Your task to perform on an android device: Clear all items from cart on walmart. Search for razer huntsman on walmart, select the first entry, and add it to the cart. Image 0: 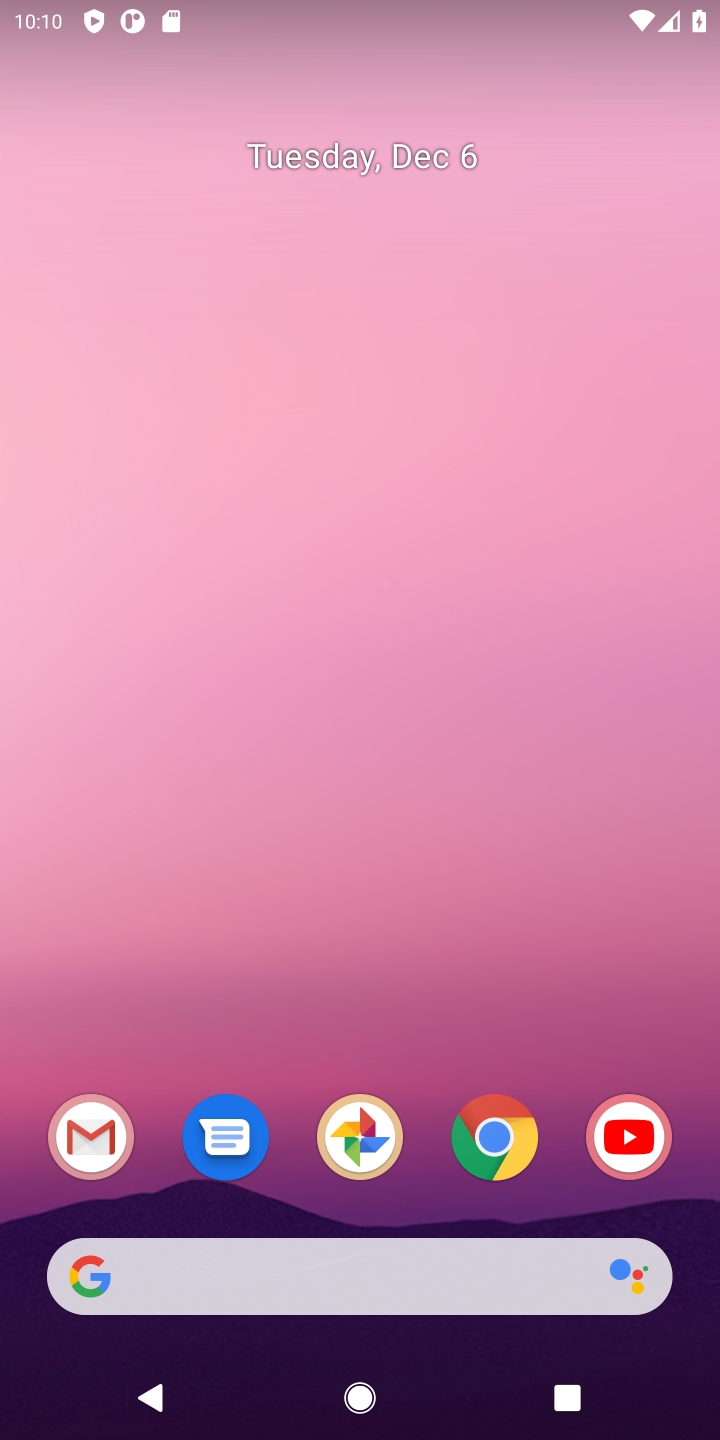
Step 0: drag from (466, 1257) to (461, 67)
Your task to perform on an android device: Clear all items from cart on walmart. Search for razer huntsman on walmart, select the first entry, and add it to the cart. Image 1: 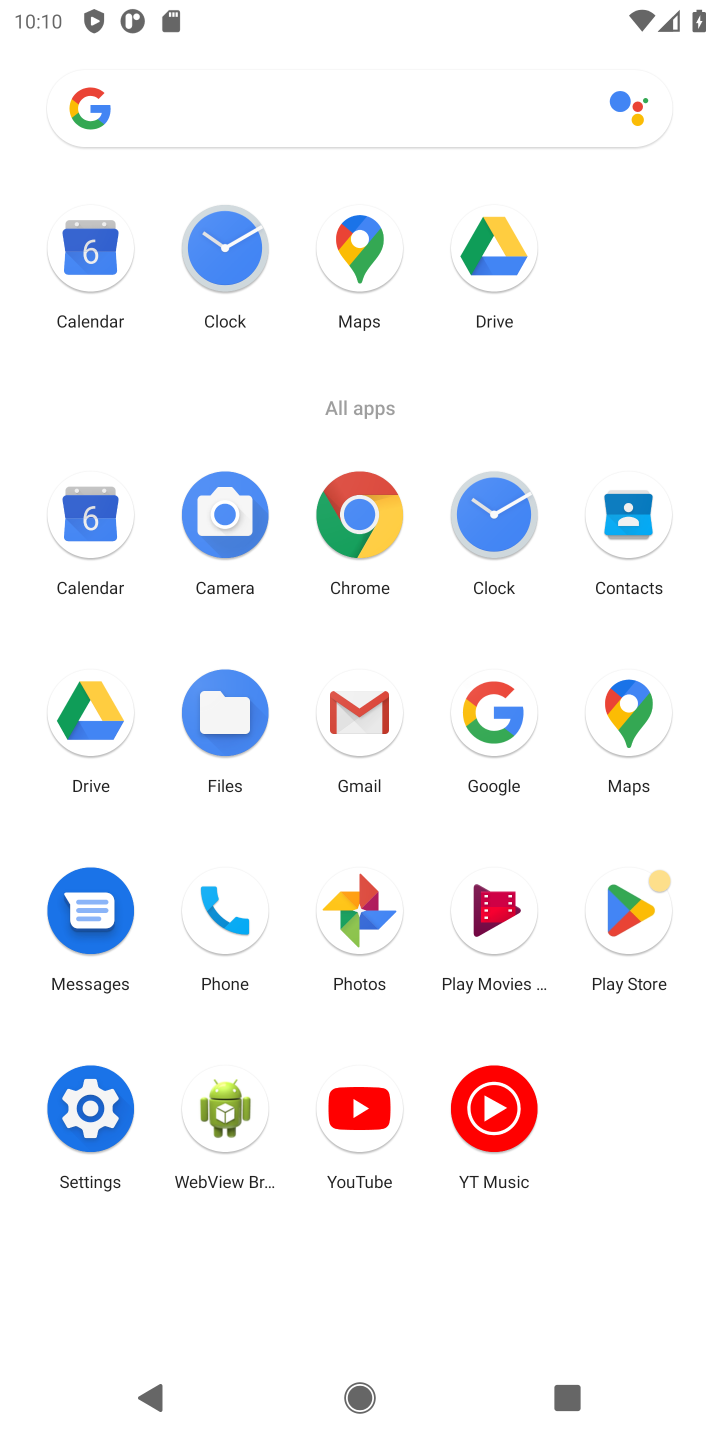
Step 1: click (368, 518)
Your task to perform on an android device: Clear all items from cart on walmart. Search for razer huntsman on walmart, select the first entry, and add it to the cart. Image 2: 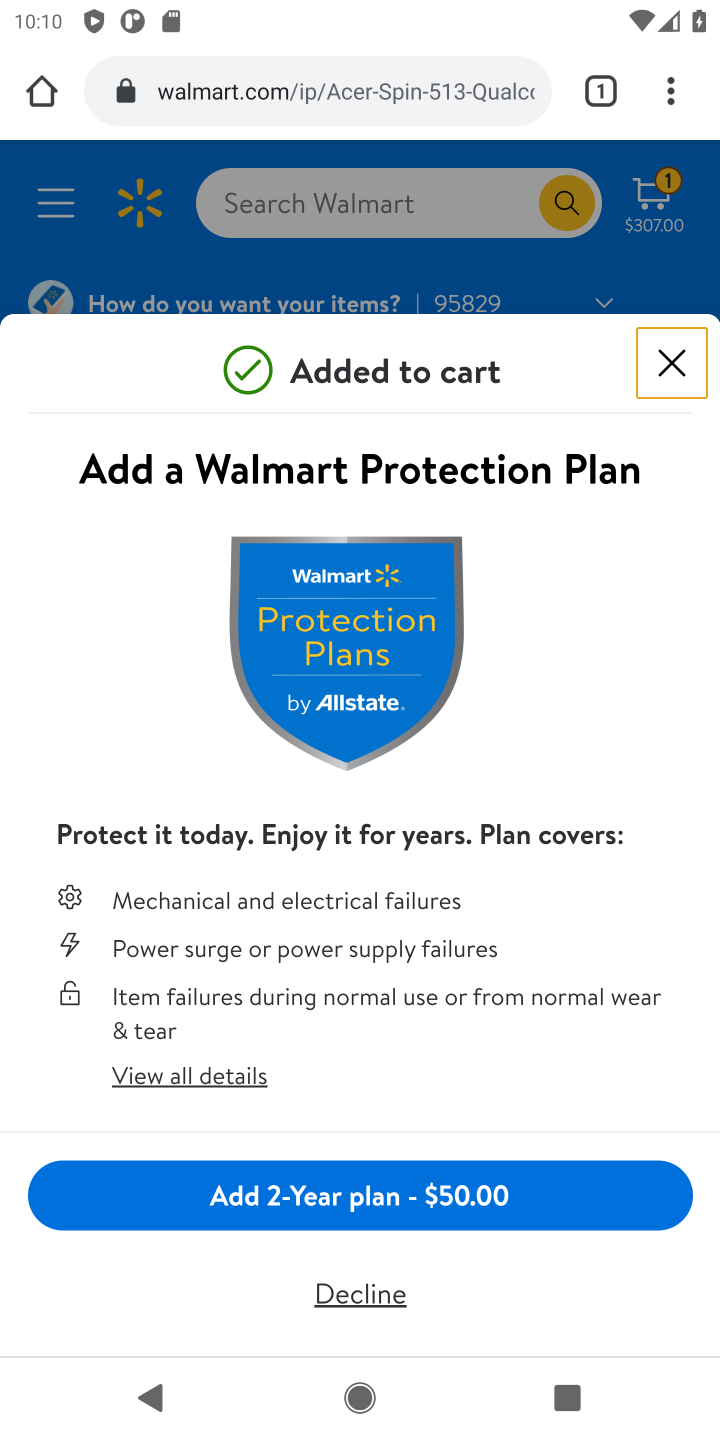
Step 2: click (667, 359)
Your task to perform on an android device: Clear all items from cart on walmart. Search for razer huntsman on walmart, select the first entry, and add it to the cart. Image 3: 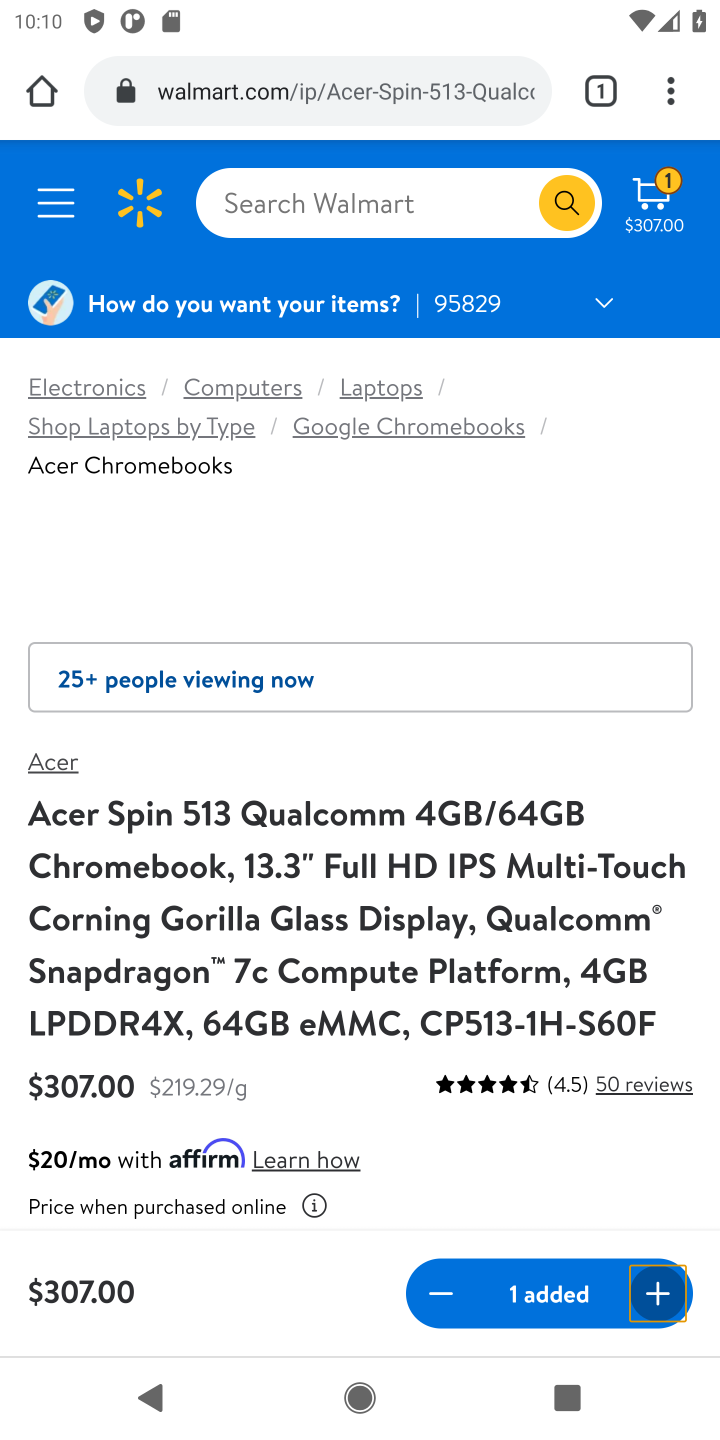
Step 3: click (265, 83)
Your task to perform on an android device: Clear all items from cart on walmart. Search for razer huntsman on walmart, select the first entry, and add it to the cart. Image 4: 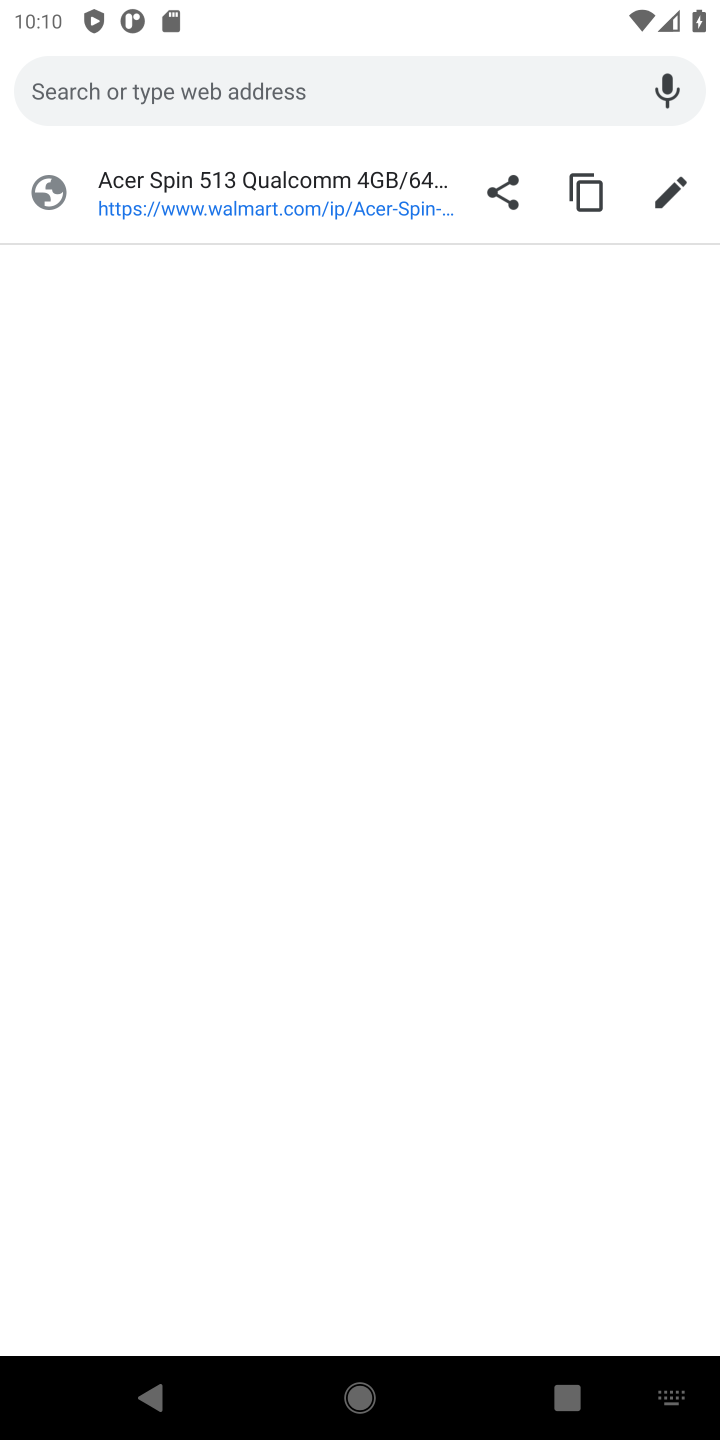
Step 4: type "walmart"
Your task to perform on an android device: Clear all items from cart on walmart. Search for razer huntsman on walmart, select the first entry, and add it to the cart. Image 5: 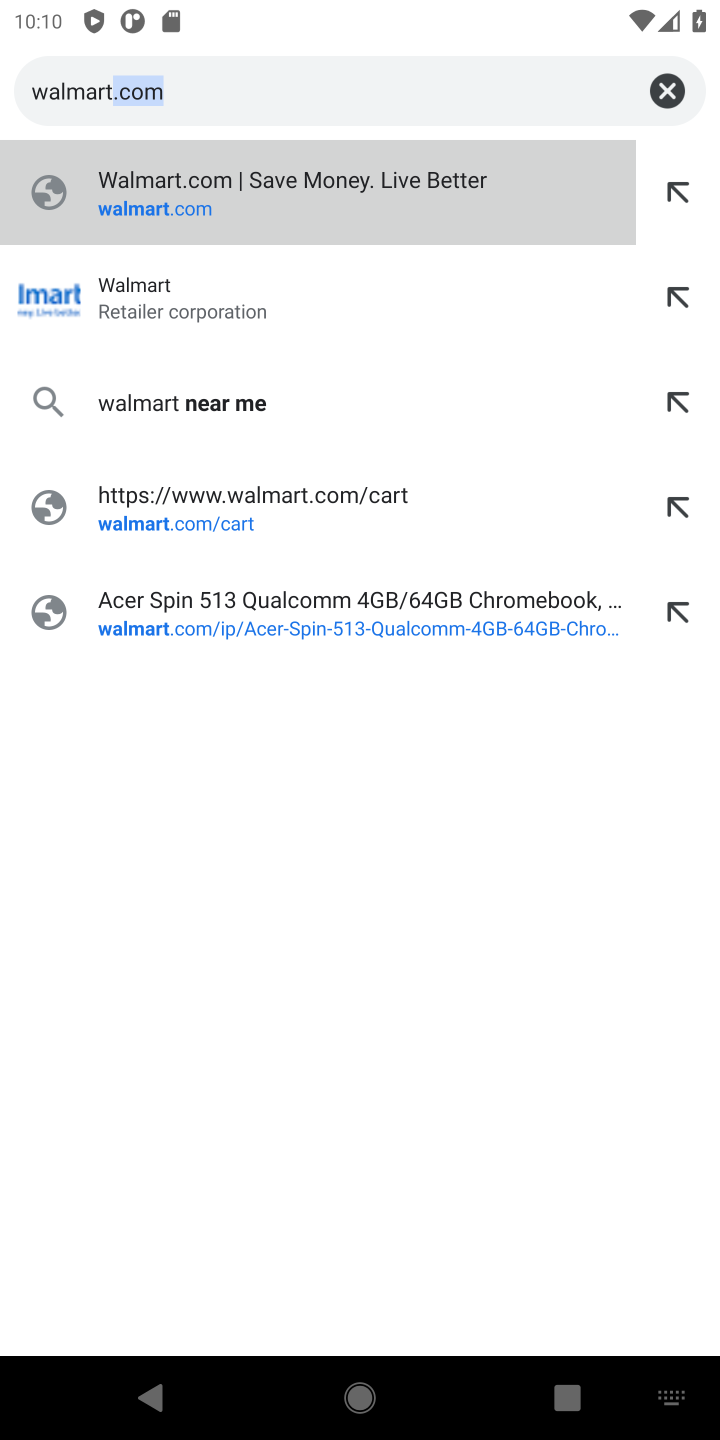
Step 5: click (179, 209)
Your task to perform on an android device: Clear all items from cart on walmart. Search for razer huntsman on walmart, select the first entry, and add it to the cart. Image 6: 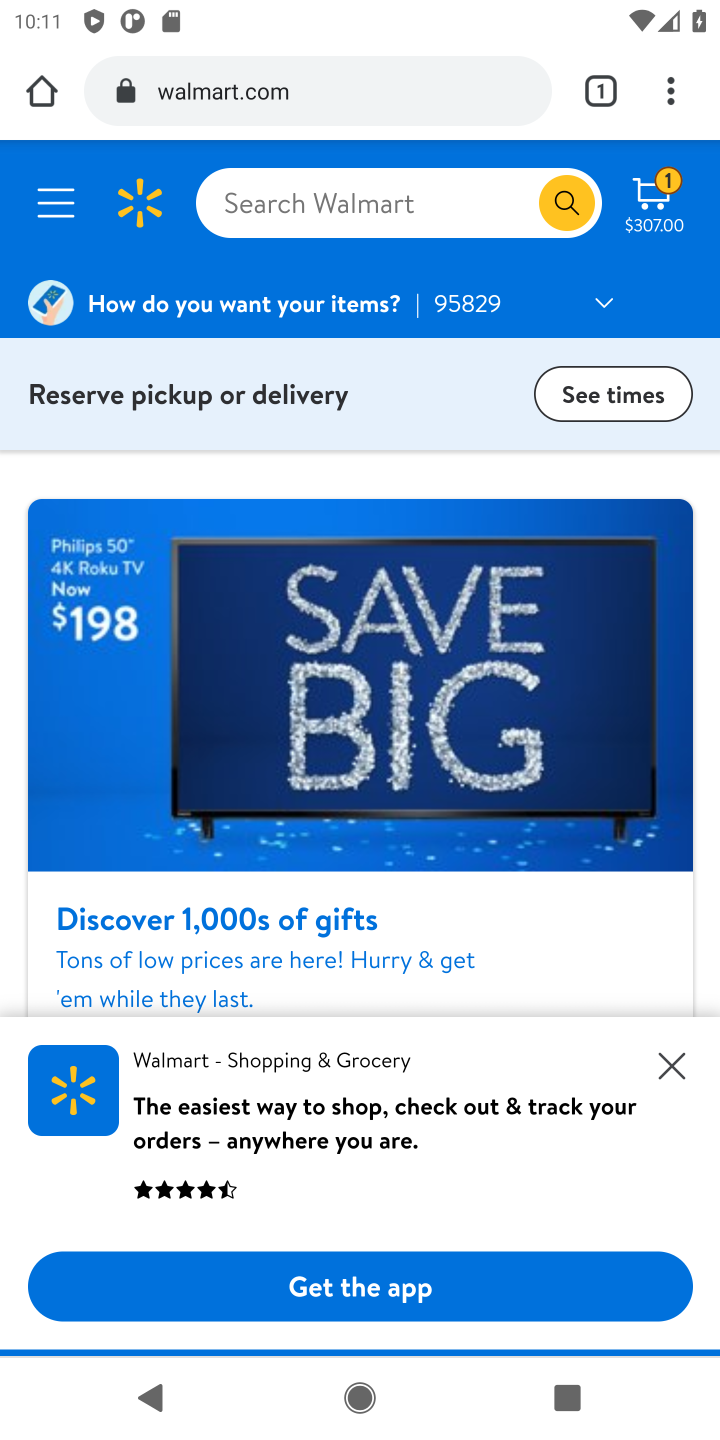
Step 6: click (665, 1061)
Your task to perform on an android device: Clear all items from cart on walmart. Search for razer huntsman on walmart, select the first entry, and add it to the cart. Image 7: 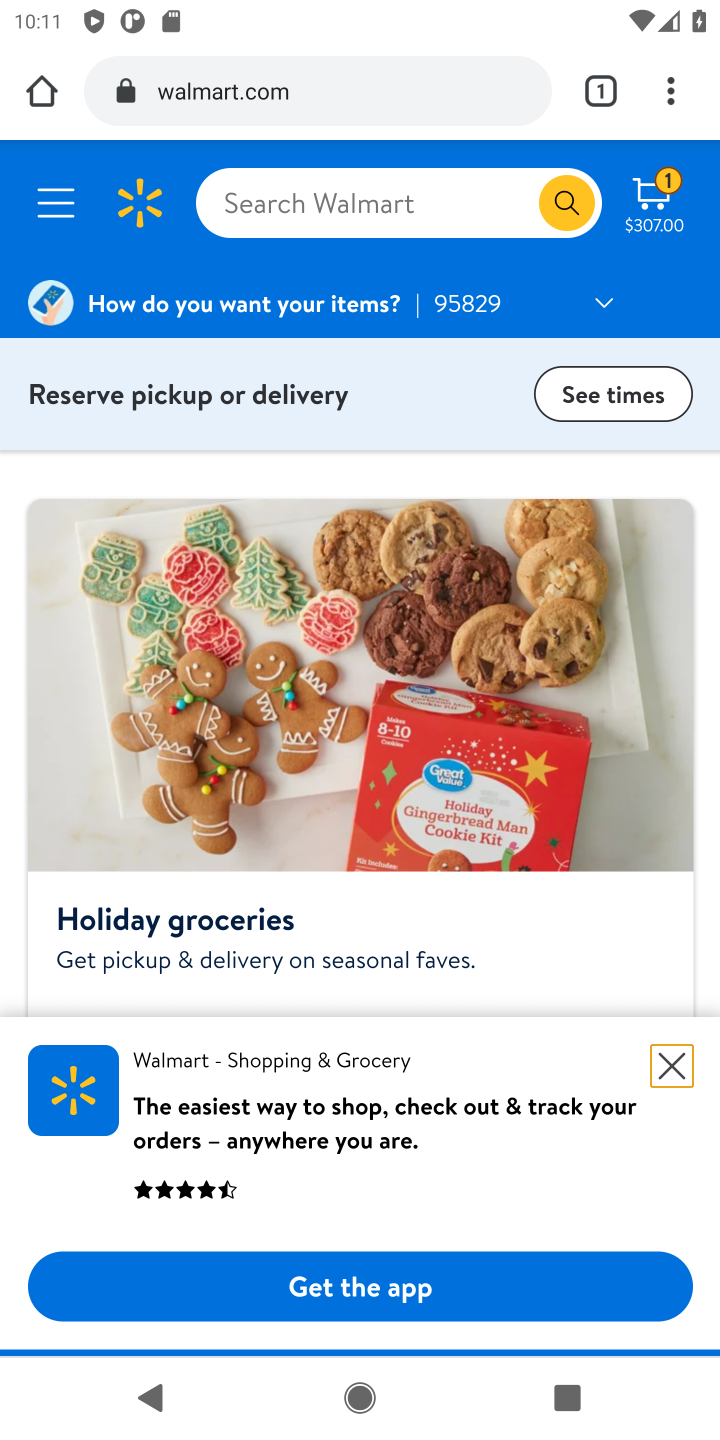
Step 7: click (651, 185)
Your task to perform on an android device: Clear all items from cart on walmart. Search for razer huntsman on walmart, select the first entry, and add it to the cart. Image 8: 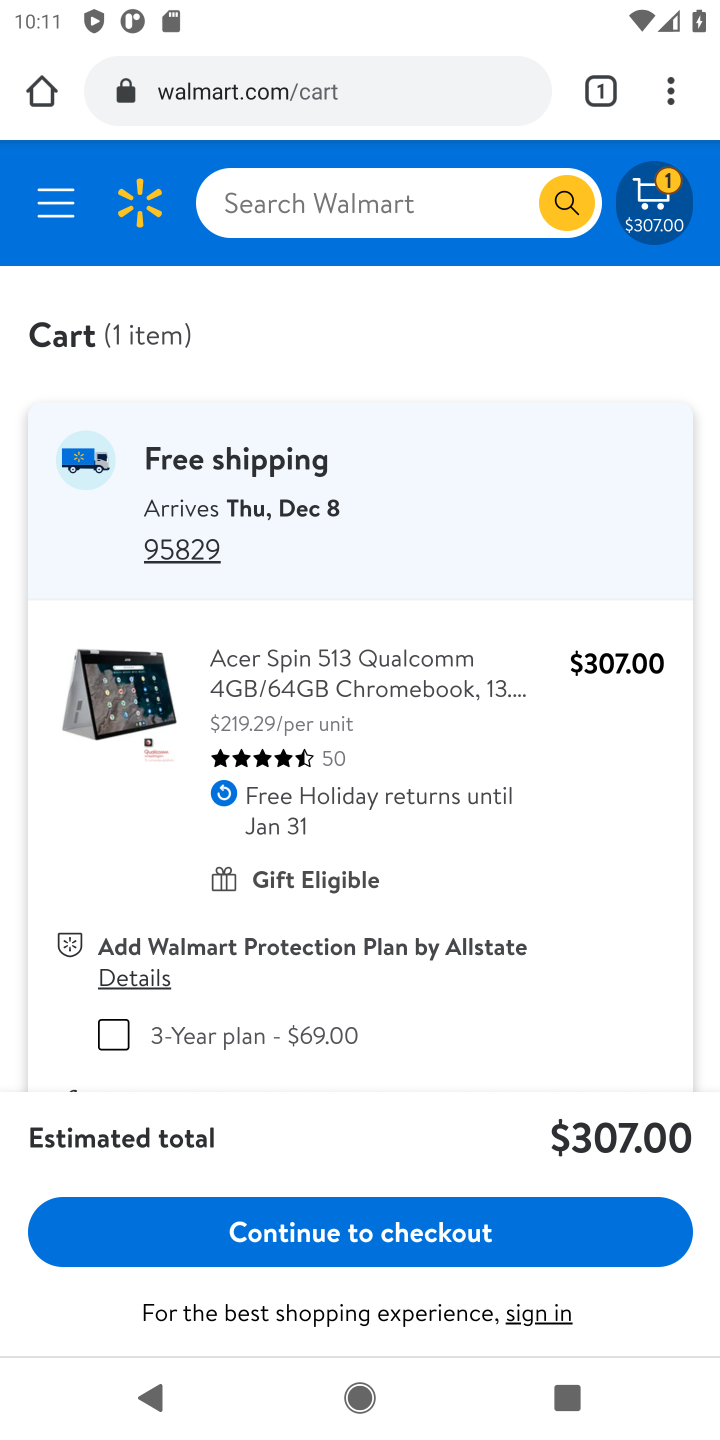
Step 8: drag from (395, 1074) to (444, 580)
Your task to perform on an android device: Clear all items from cart on walmart. Search for razer huntsman on walmart, select the first entry, and add it to the cart. Image 9: 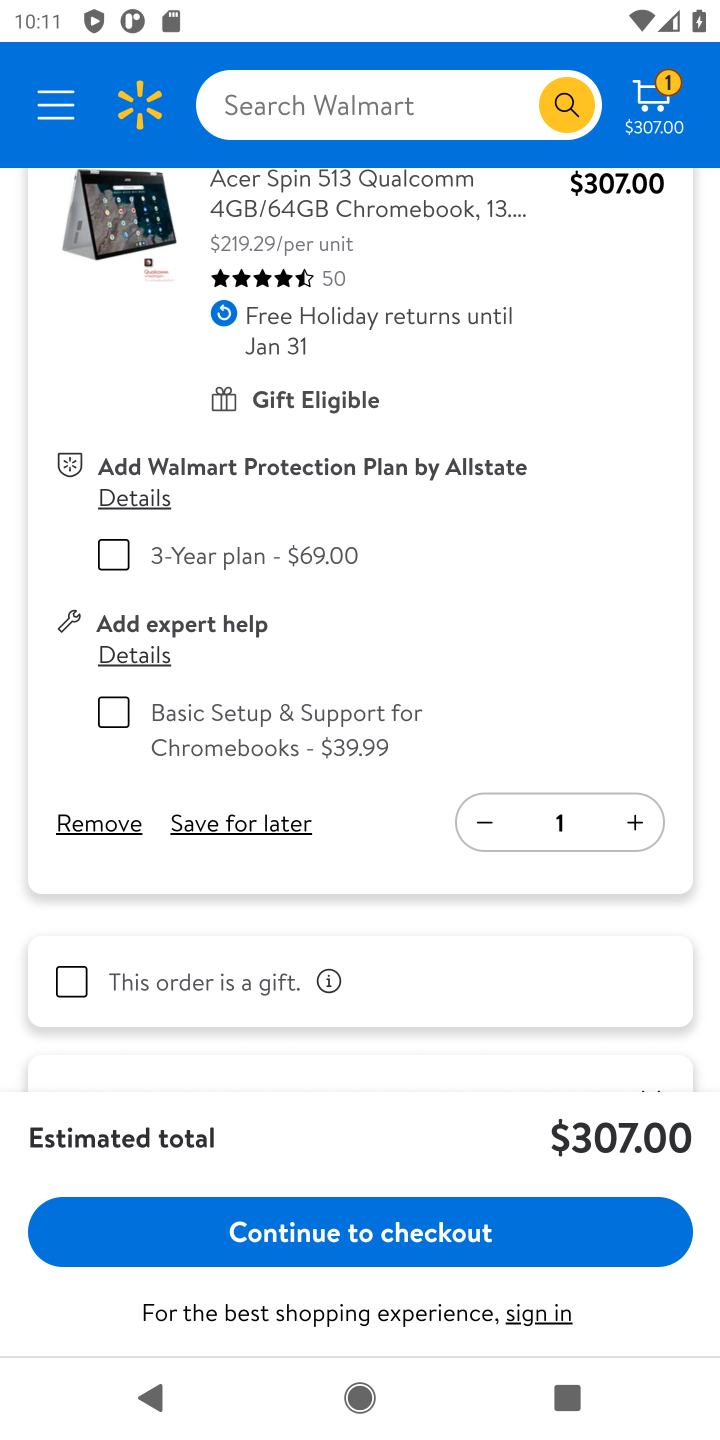
Step 9: click (83, 814)
Your task to perform on an android device: Clear all items from cart on walmart. Search for razer huntsman on walmart, select the first entry, and add it to the cart. Image 10: 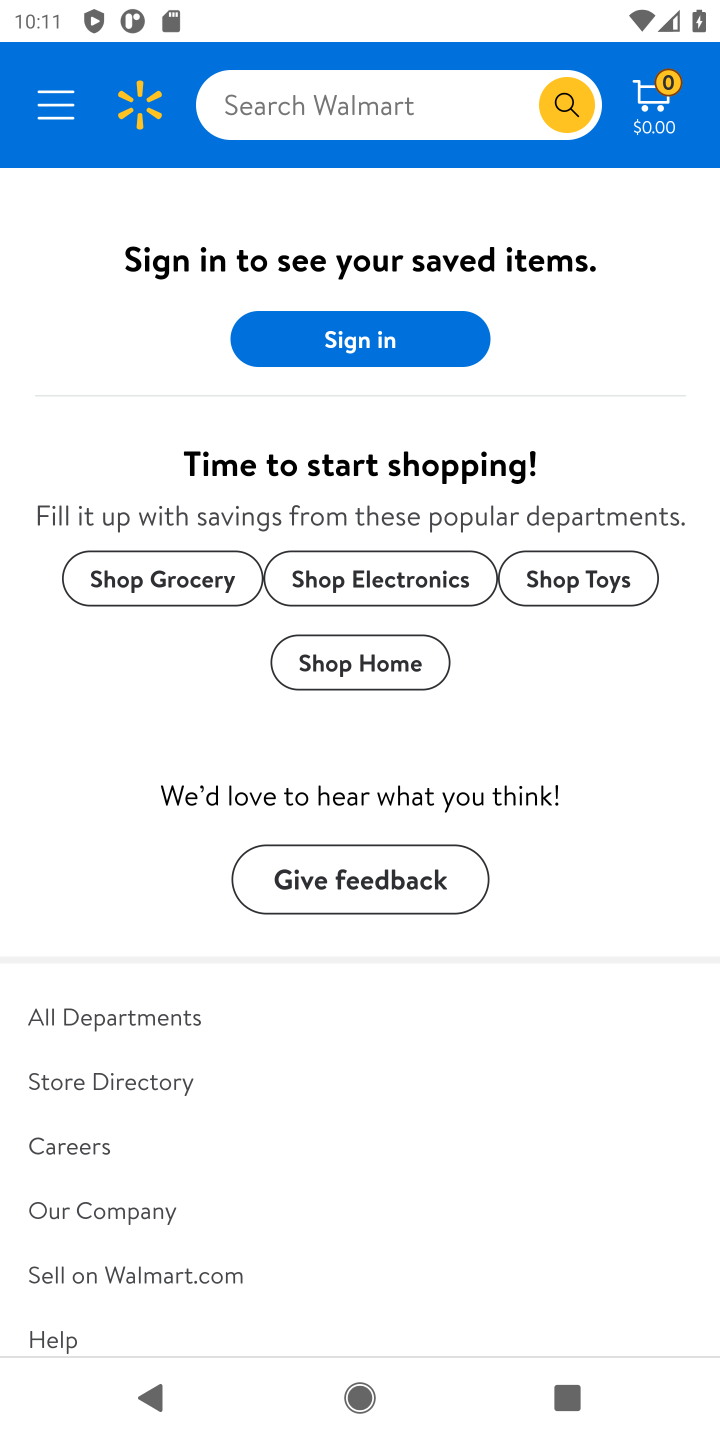
Step 10: click (284, 108)
Your task to perform on an android device: Clear all items from cart on walmart. Search for razer huntsman on walmart, select the first entry, and add it to the cart. Image 11: 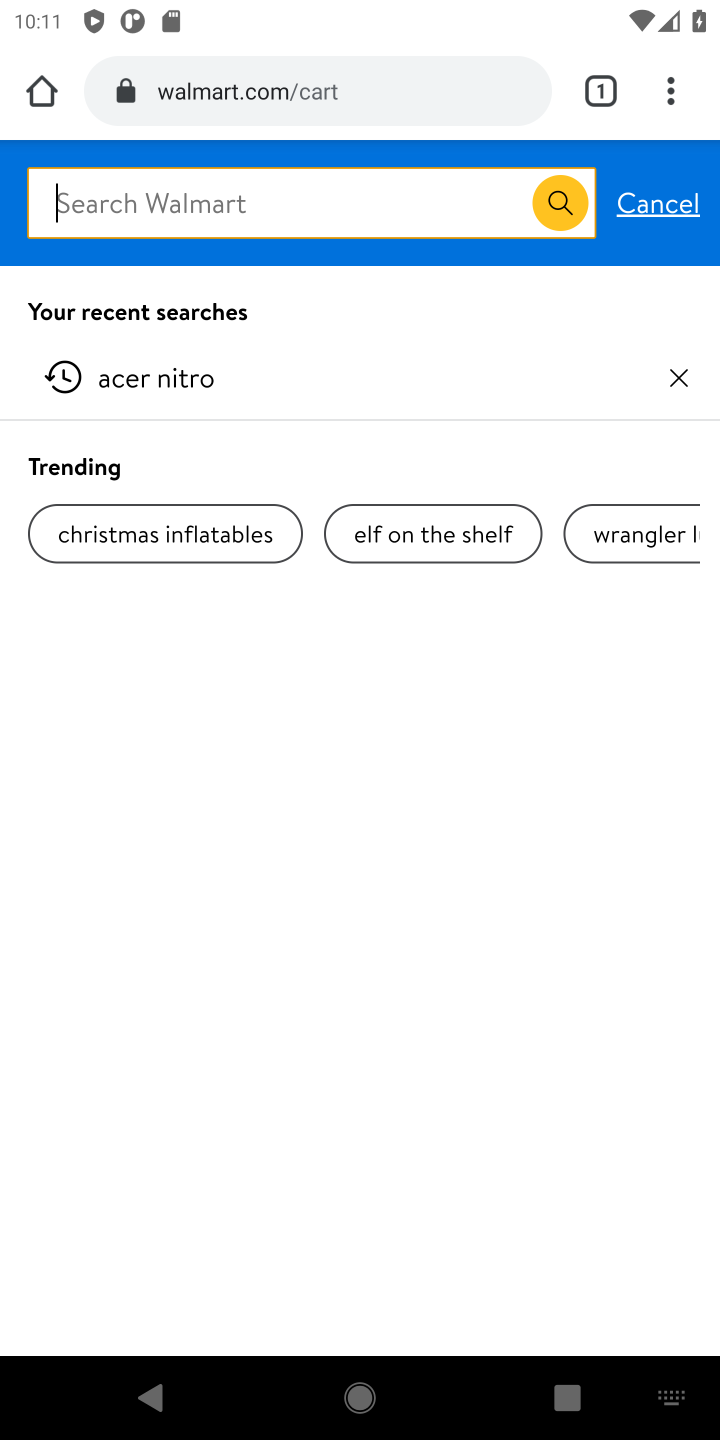
Step 11: type " razer huntsman"
Your task to perform on an android device: Clear all items from cart on walmart. Search for razer huntsman on walmart, select the first entry, and add it to the cart. Image 12: 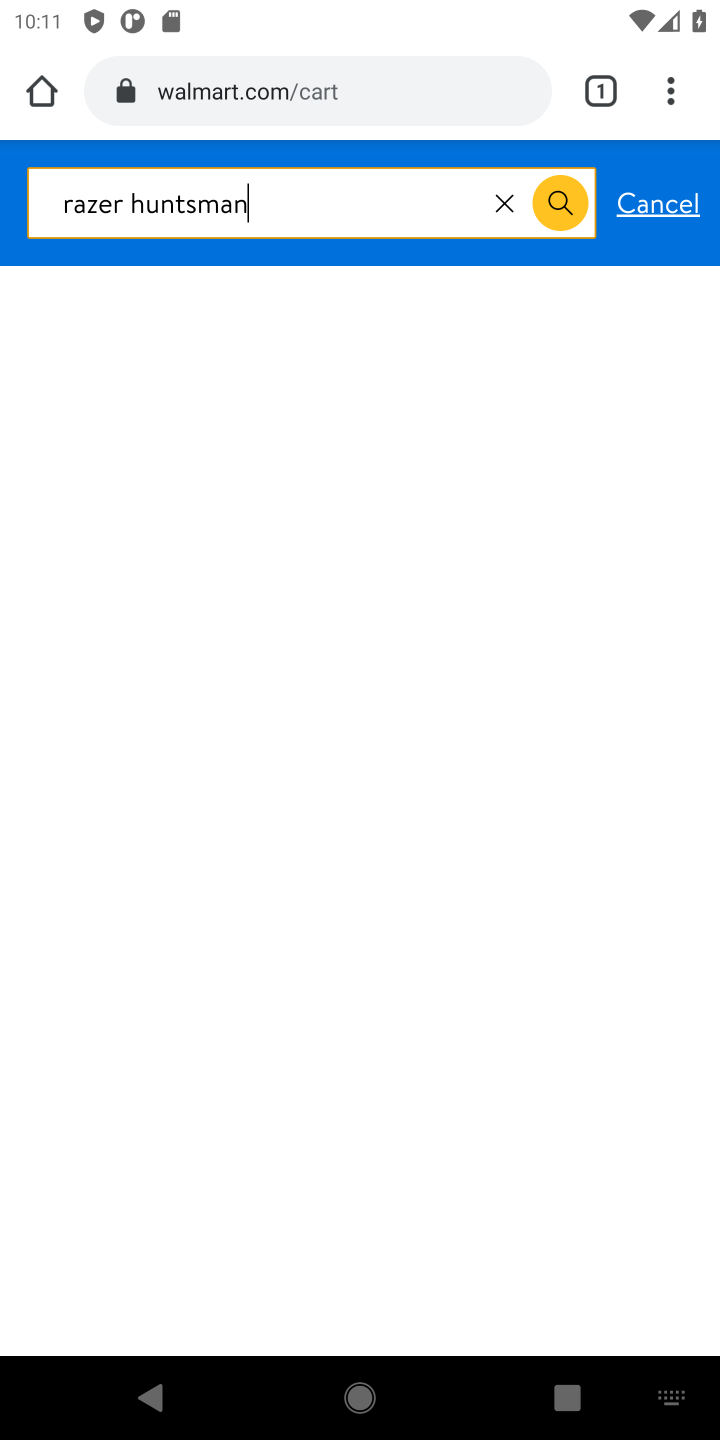
Step 12: type ""
Your task to perform on an android device: Clear all items from cart on walmart. Search for razer huntsman on walmart, select the first entry, and add it to the cart. Image 13: 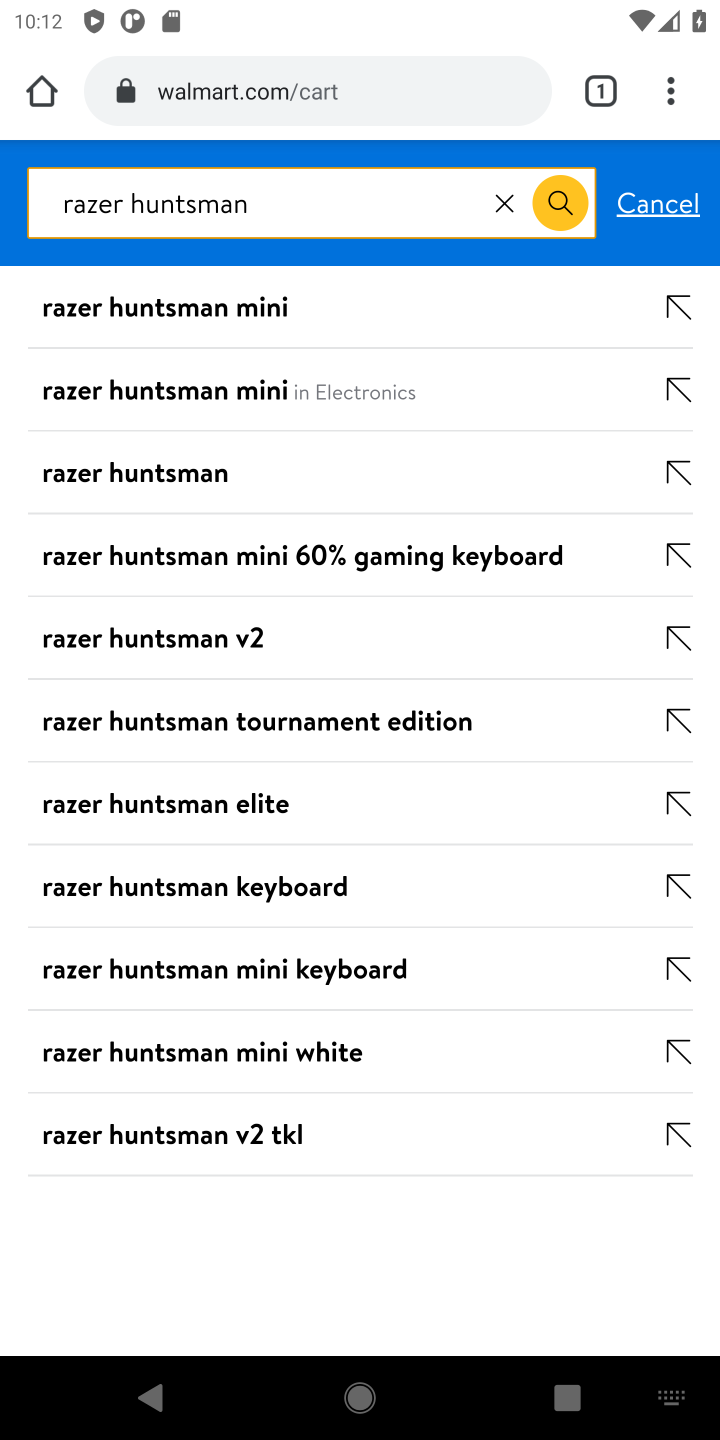
Step 13: click (557, 190)
Your task to perform on an android device: Clear all items from cart on walmart. Search for razer huntsman on walmart, select the first entry, and add it to the cart. Image 14: 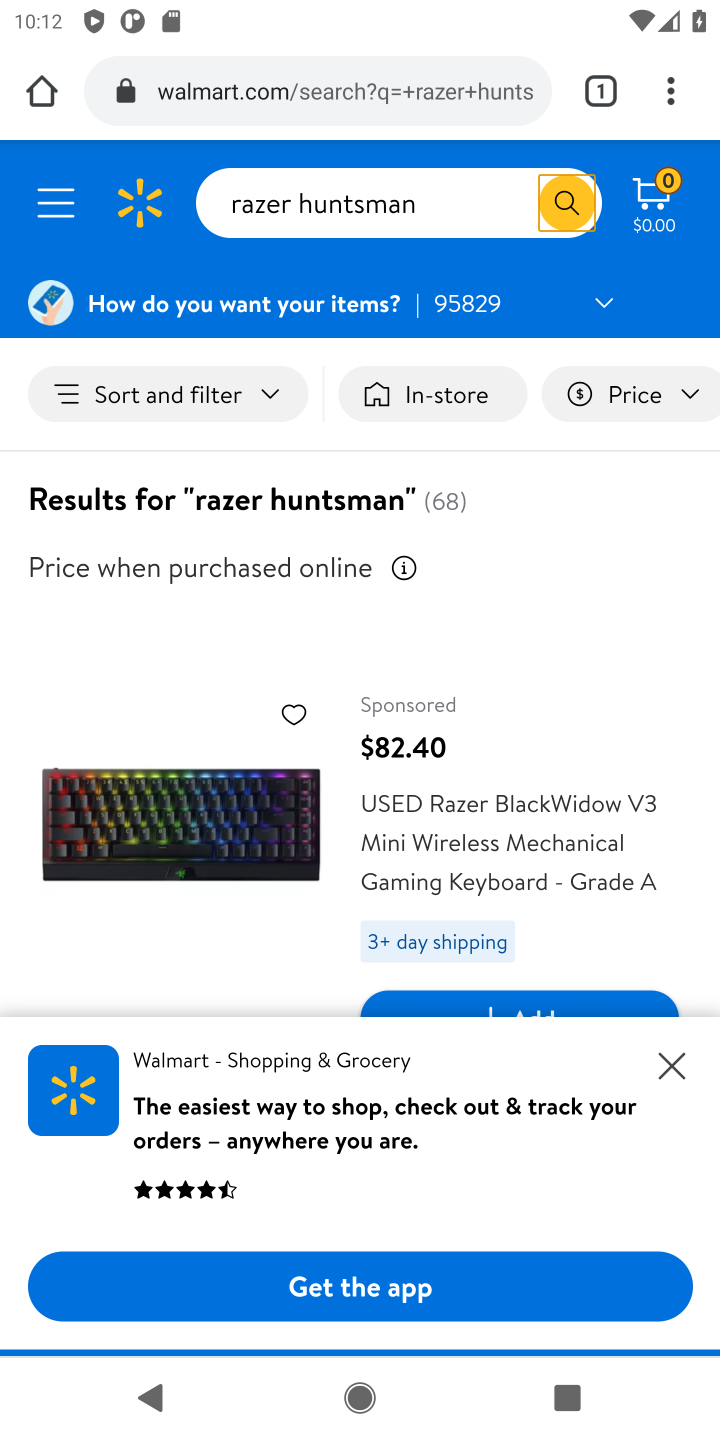
Step 14: drag from (481, 716) to (481, 439)
Your task to perform on an android device: Clear all items from cart on walmart. Search for razer huntsman on walmart, select the first entry, and add it to the cart. Image 15: 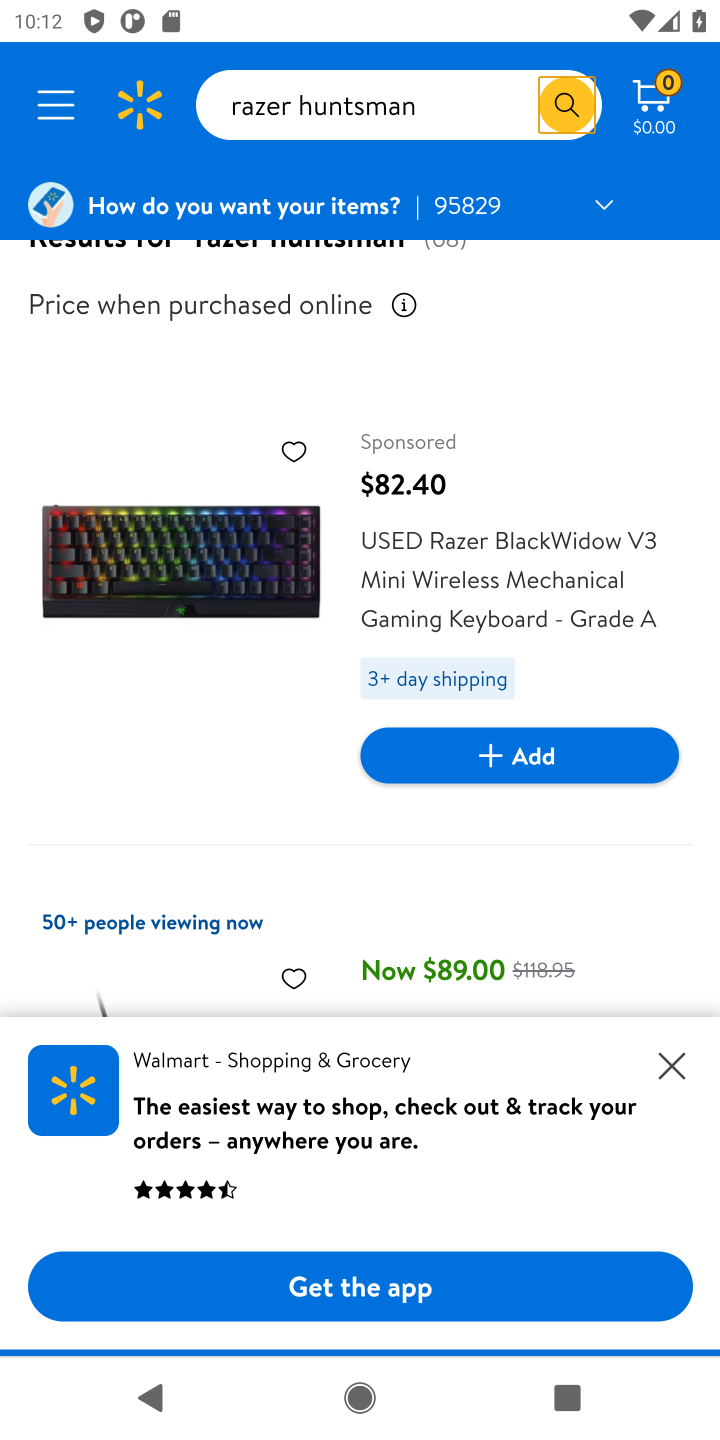
Step 15: click (140, 587)
Your task to perform on an android device: Clear all items from cart on walmart. Search for razer huntsman on walmart, select the first entry, and add it to the cart. Image 16: 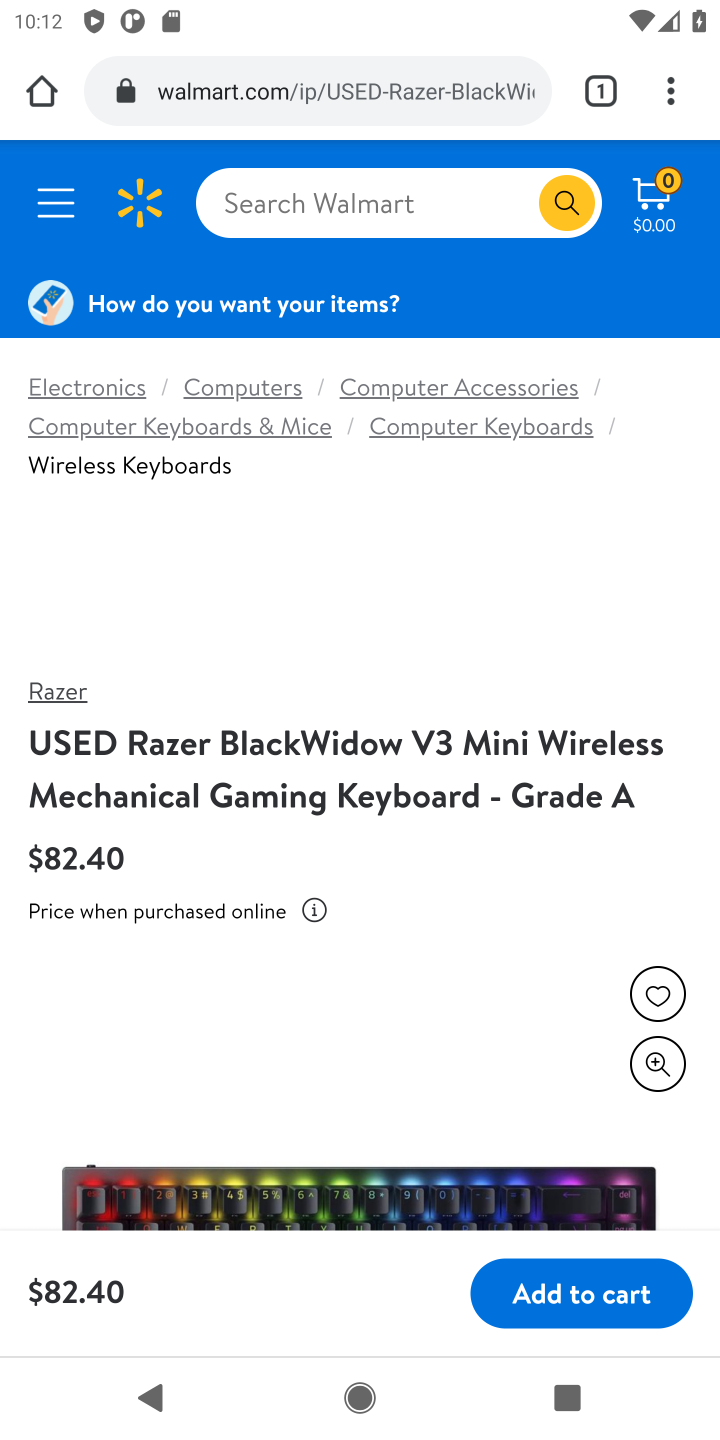
Step 16: drag from (514, 975) to (484, 411)
Your task to perform on an android device: Clear all items from cart on walmart. Search for razer huntsman on walmart, select the first entry, and add it to the cart. Image 17: 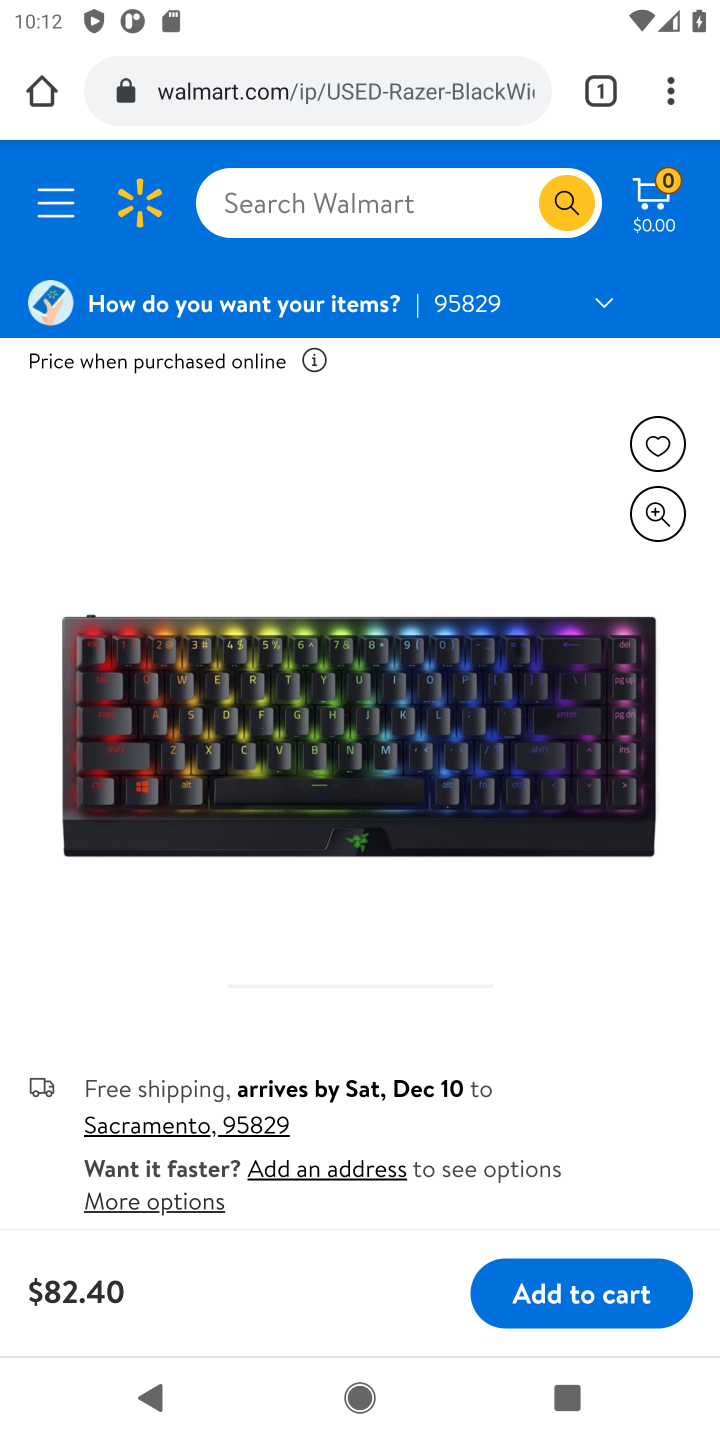
Step 17: drag from (427, 993) to (470, 582)
Your task to perform on an android device: Clear all items from cart on walmart. Search for razer huntsman on walmart, select the first entry, and add it to the cart. Image 18: 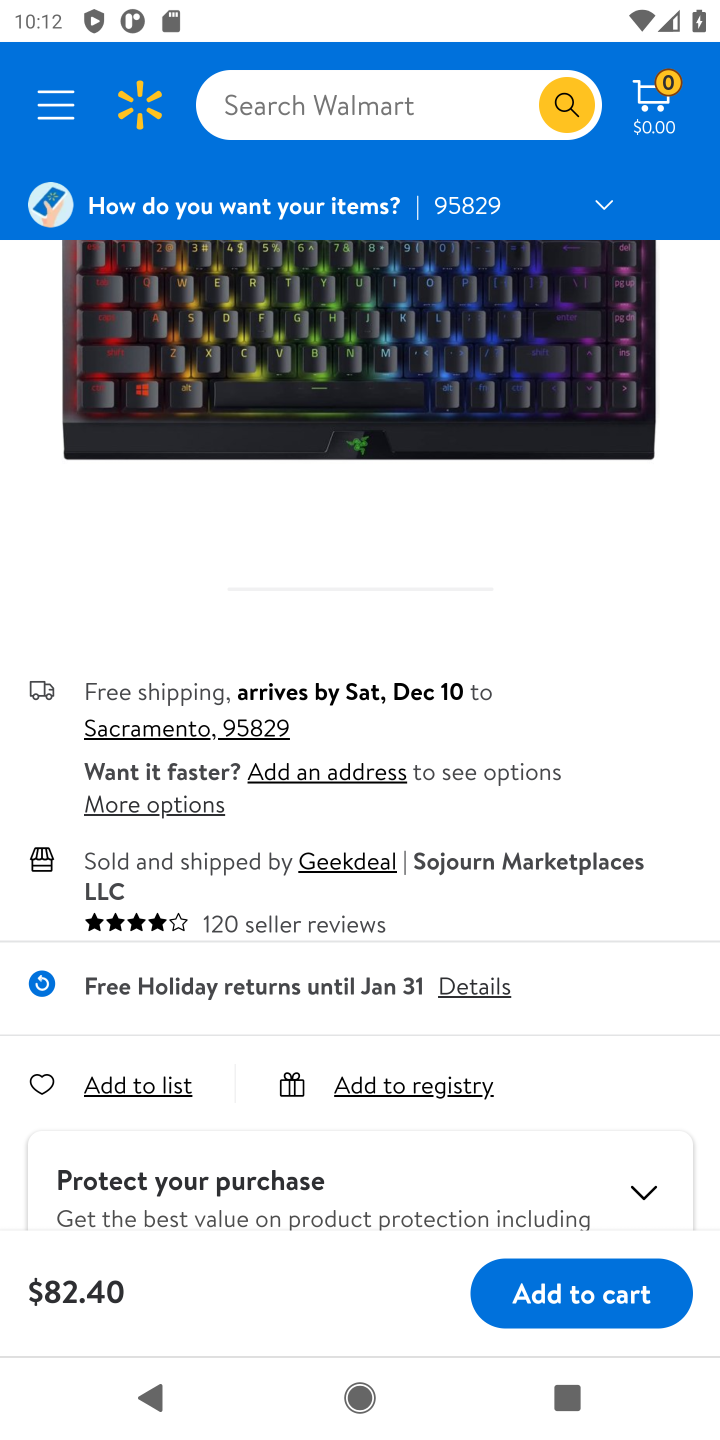
Step 18: click (583, 1288)
Your task to perform on an android device: Clear all items from cart on walmart. Search for razer huntsman on walmart, select the first entry, and add it to the cart. Image 19: 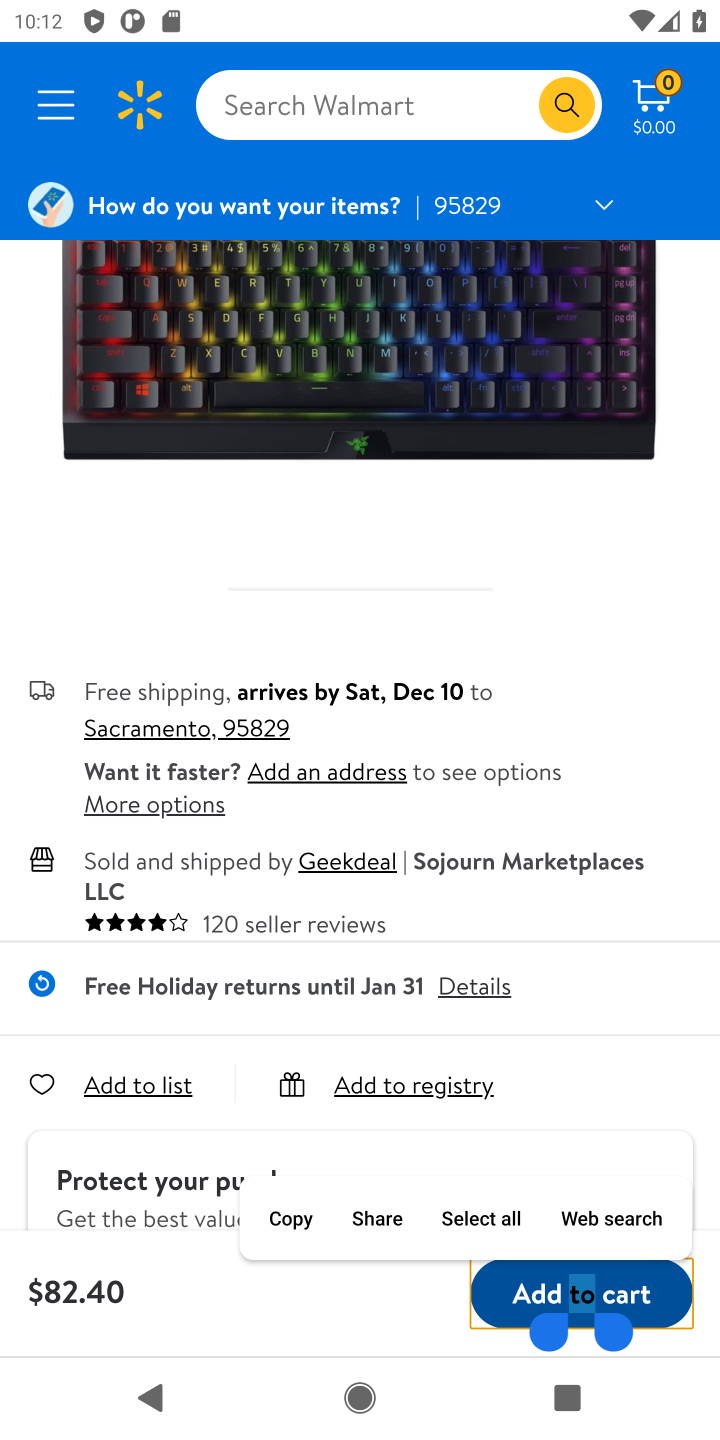
Step 19: click (627, 1284)
Your task to perform on an android device: Clear all items from cart on walmart. Search for razer huntsman on walmart, select the first entry, and add it to the cart. Image 20: 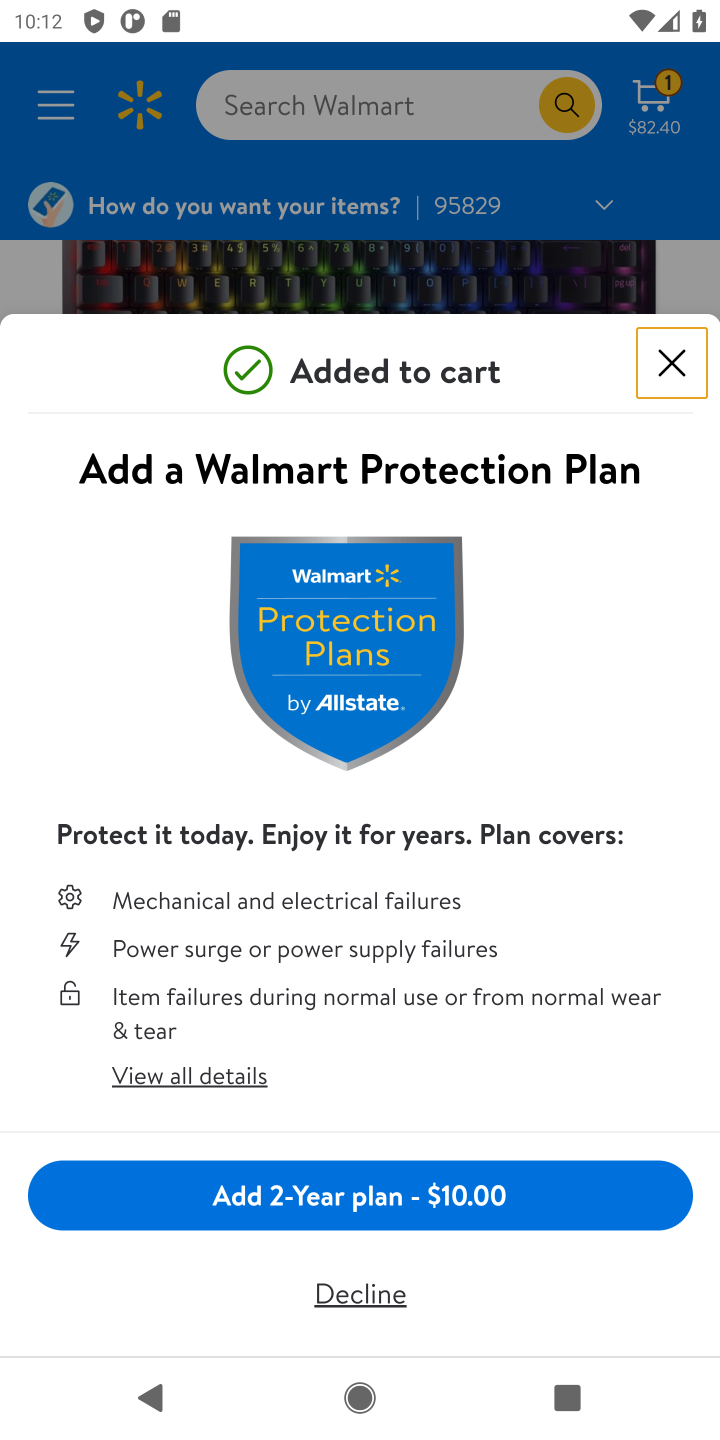
Step 20: task complete